Your task to perform on an android device: turn on the 12-hour format for clock Image 0: 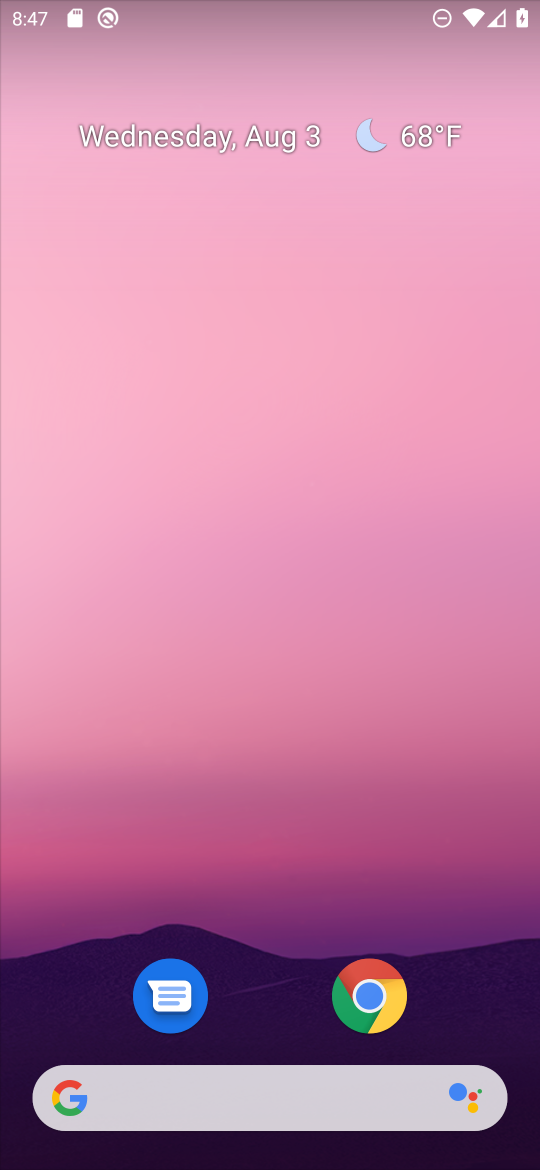
Step 0: drag from (285, 893) to (347, 2)
Your task to perform on an android device: turn on the 12-hour format for clock Image 1: 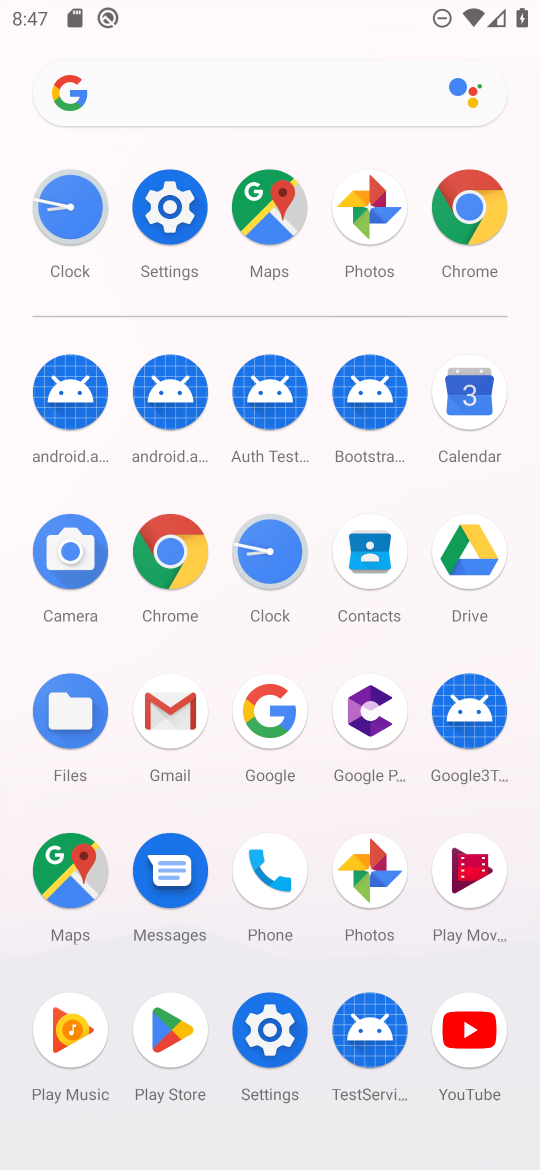
Step 1: click (261, 548)
Your task to perform on an android device: turn on the 12-hour format for clock Image 2: 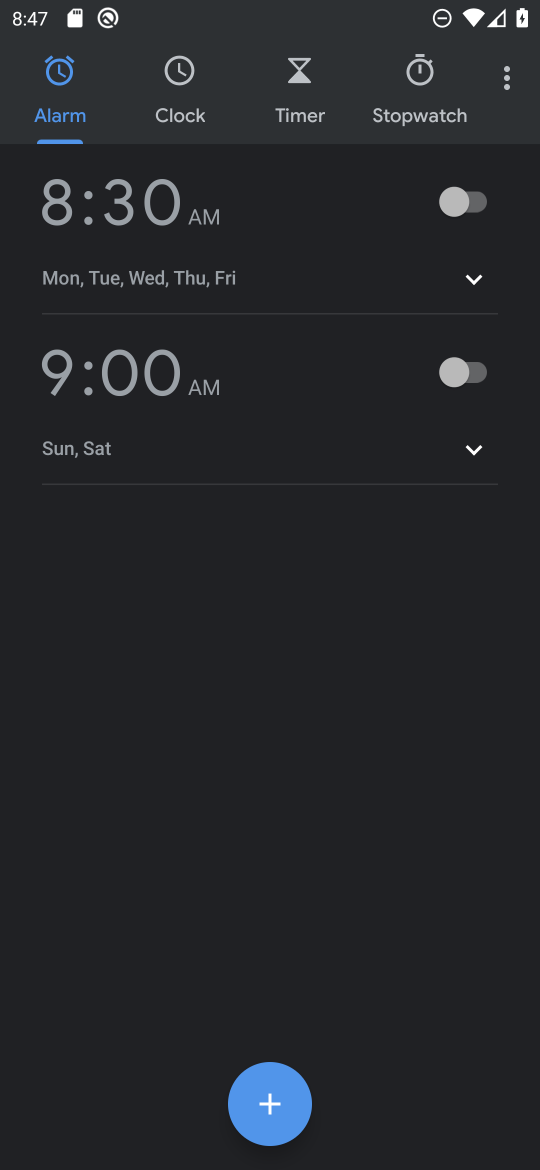
Step 2: click (510, 90)
Your task to perform on an android device: turn on the 12-hour format for clock Image 3: 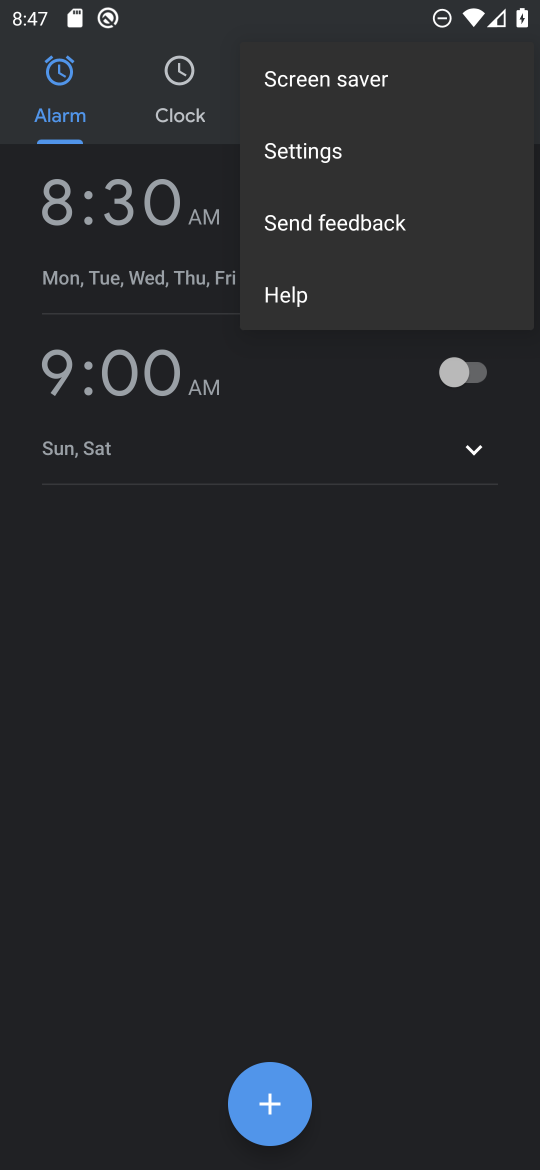
Step 3: click (386, 153)
Your task to perform on an android device: turn on the 12-hour format for clock Image 4: 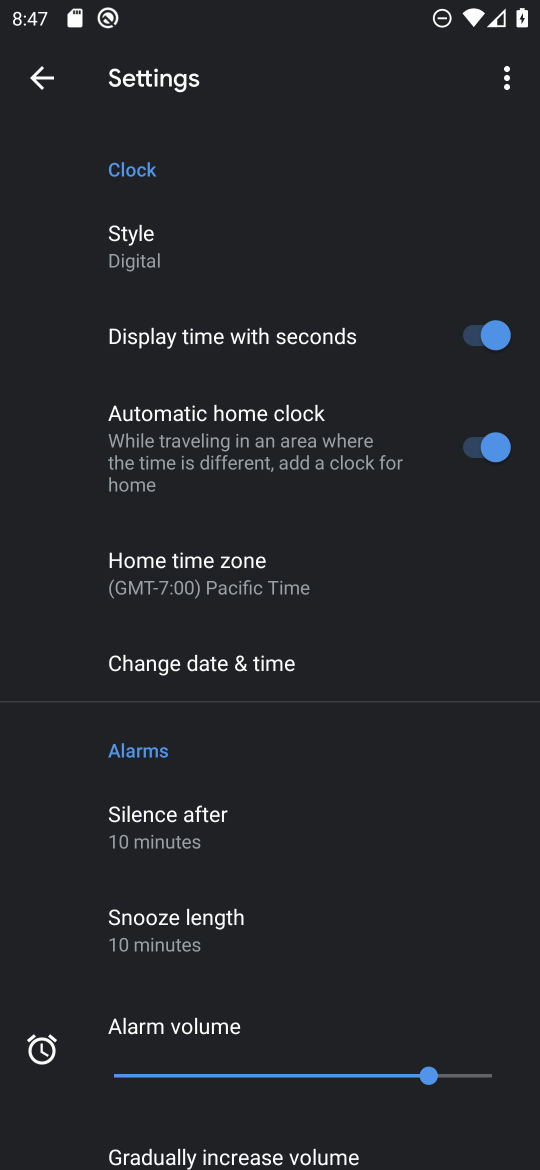
Step 4: drag from (321, 753) to (430, 467)
Your task to perform on an android device: turn on the 12-hour format for clock Image 5: 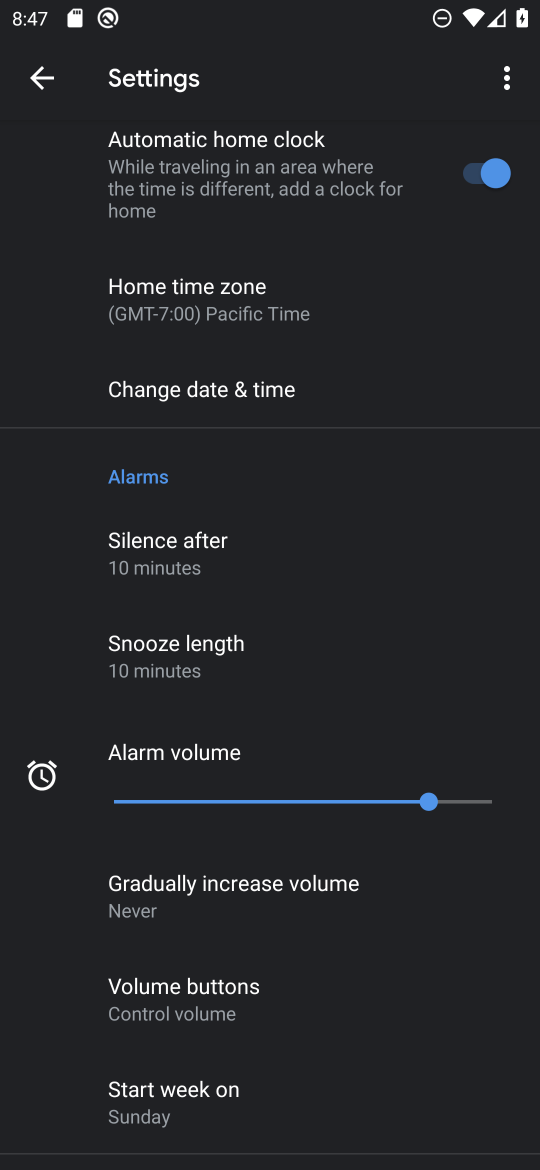
Step 5: click (323, 399)
Your task to perform on an android device: turn on the 12-hour format for clock Image 6: 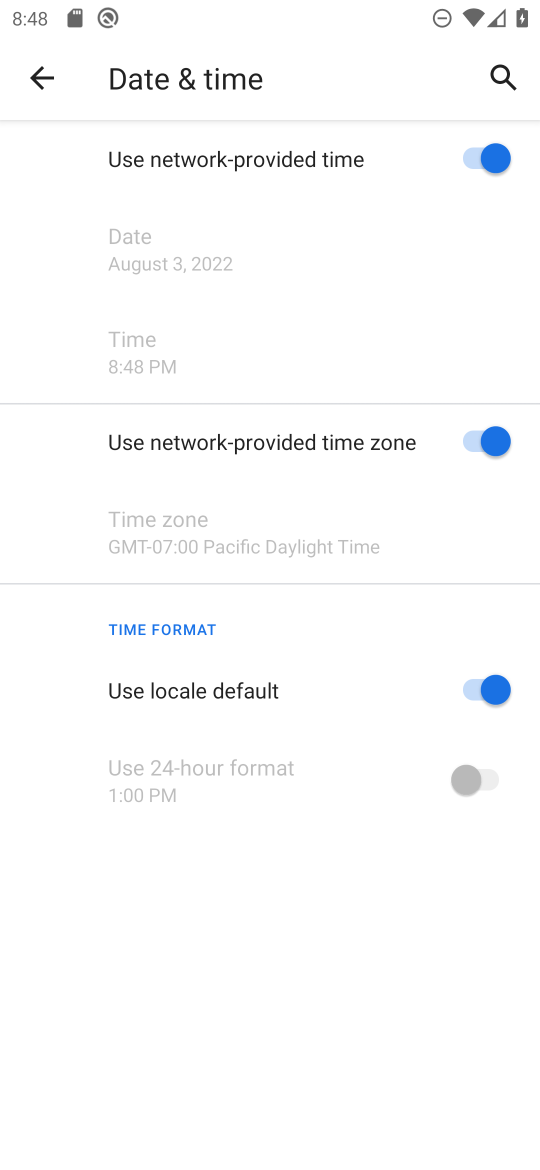
Step 6: task complete